Your task to perform on an android device: turn on notifications settings in the gmail app Image 0: 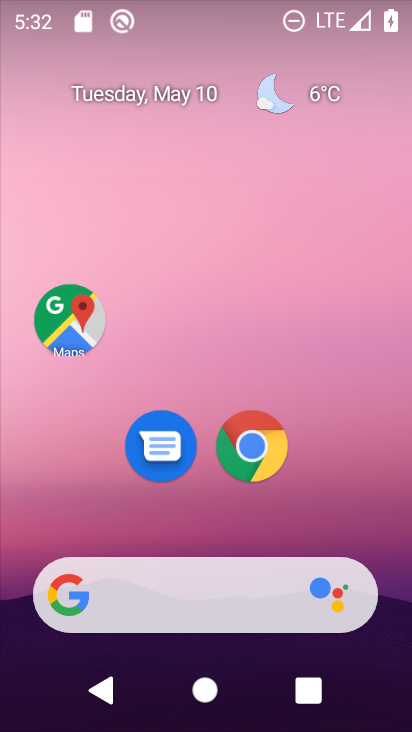
Step 0: drag from (234, 518) to (235, 89)
Your task to perform on an android device: turn on notifications settings in the gmail app Image 1: 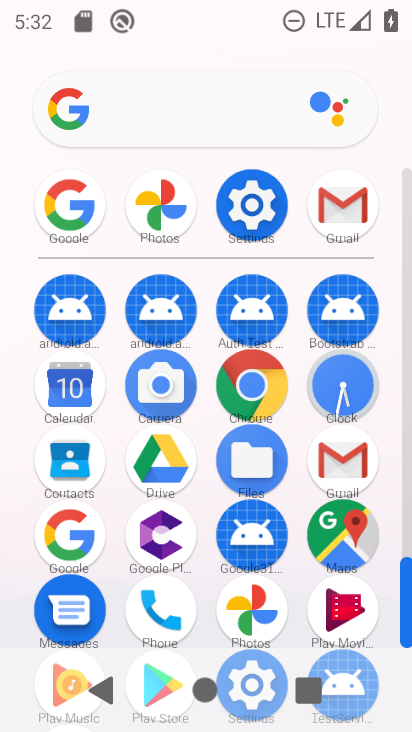
Step 1: click (344, 453)
Your task to perform on an android device: turn on notifications settings in the gmail app Image 2: 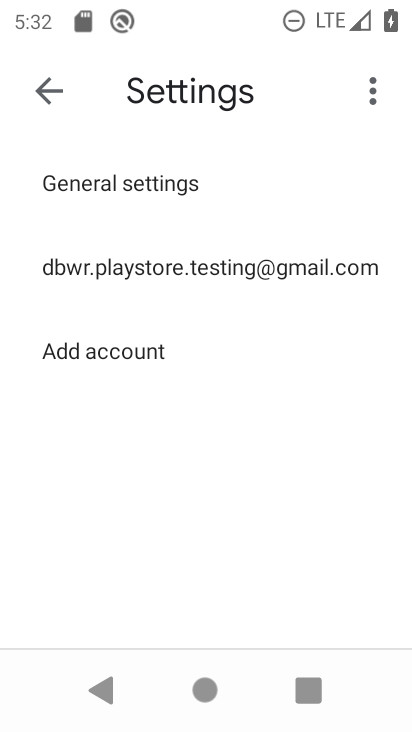
Step 2: press home button
Your task to perform on an android device: turn on notifications settings in the gmail app Image 3: 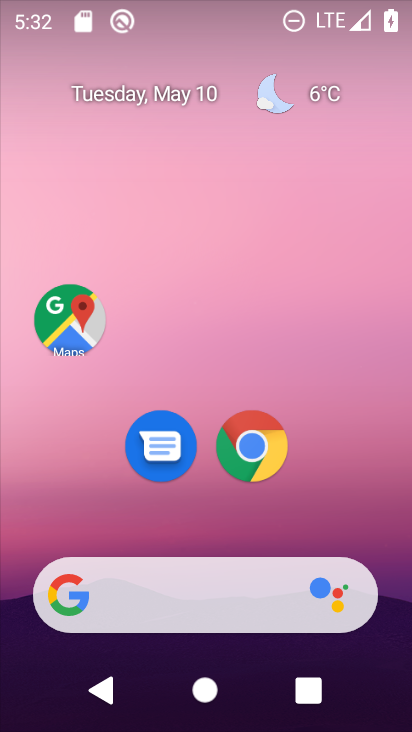
Step 3: drag from (273, 521) to (274, 162)
Your task to perform on an android device: turn on notifications settings in the gmail app Image 4: 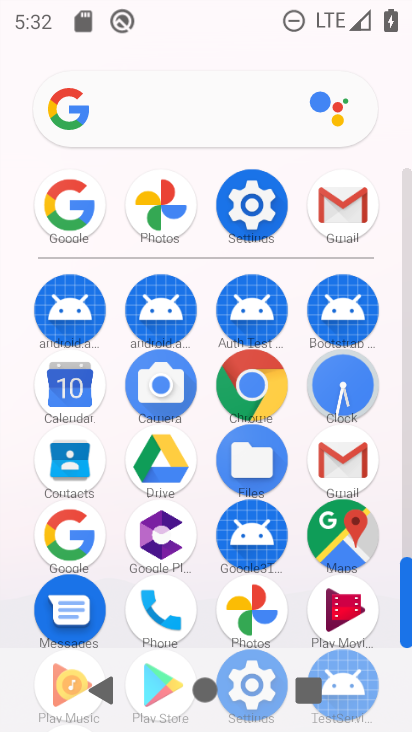
Step 4: click (357, 461)
Your task to perform on an android device: turn on notifications settings in the gmail app Image 5: 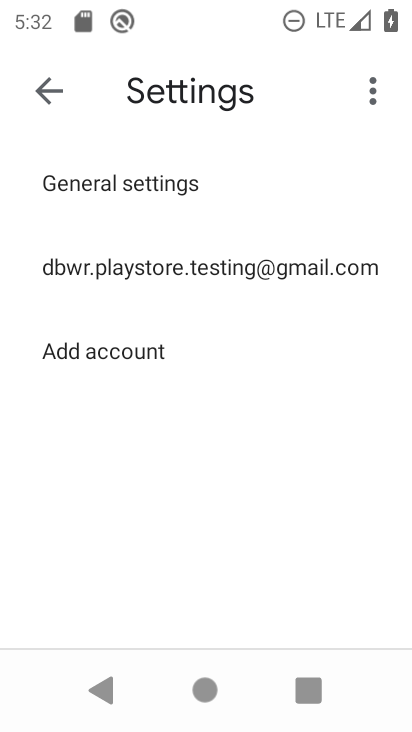
Step 5: click (128, 266)
Your task to perform on an android device: turn on notifications settings in the gmail app Image 6: 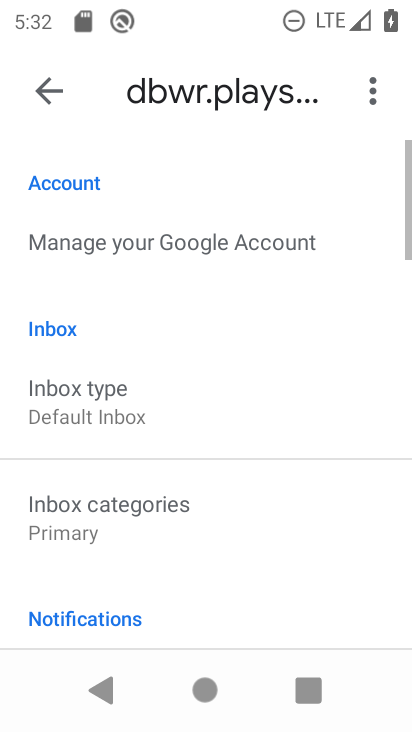
Step 6: drag from (111, 555) to (143, 80)
Your task to perform on an android device: turn on notifications settings in the gmail app Image 7: 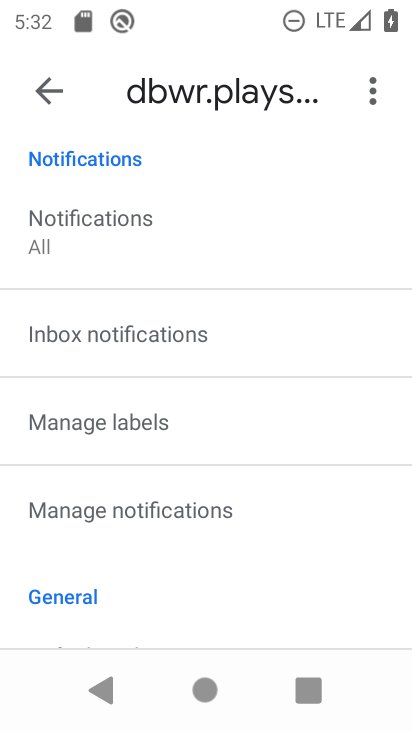
Step 7: click (148, 505)
Your task to perform on an android device: turn on notifications settings in the gmail app Image 8: 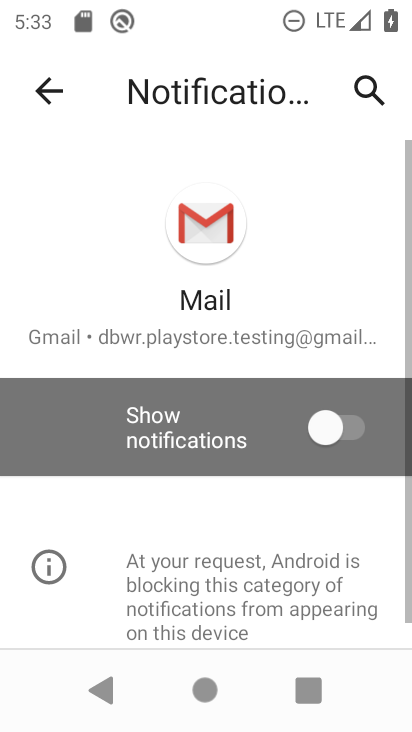
Step 8: click (327, 413)
Your task to perform on an android device: turn on notifications settings in the gmail app Image 9: 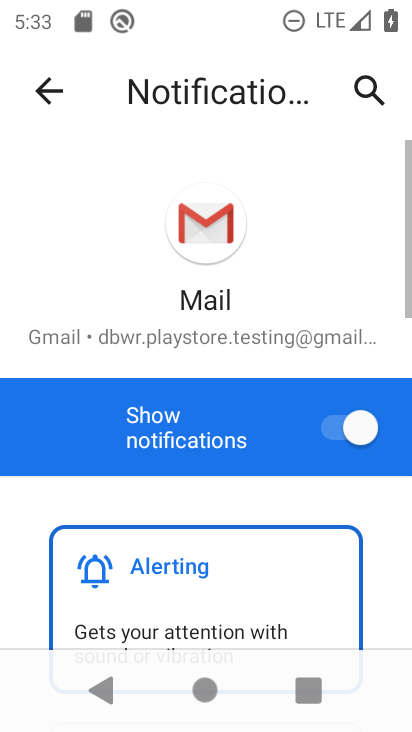
Step 9: task complete